Your task to perform on an android device: Do I have any events today? Image 0: 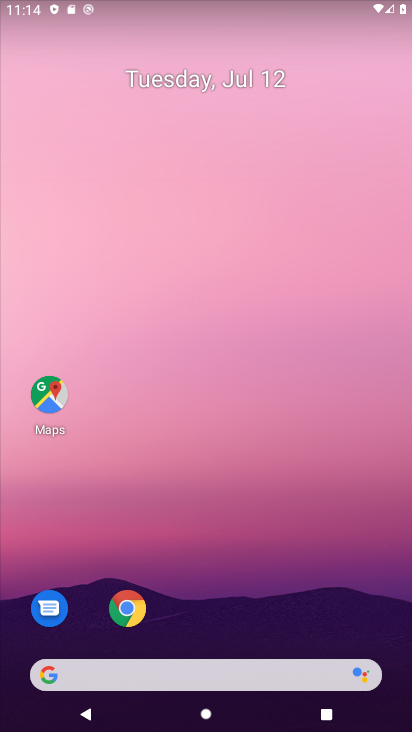
Step 0: drag from (243, 729) to (250, 98)
Your task to perform on an android device: Do I have any events today? Image 1: 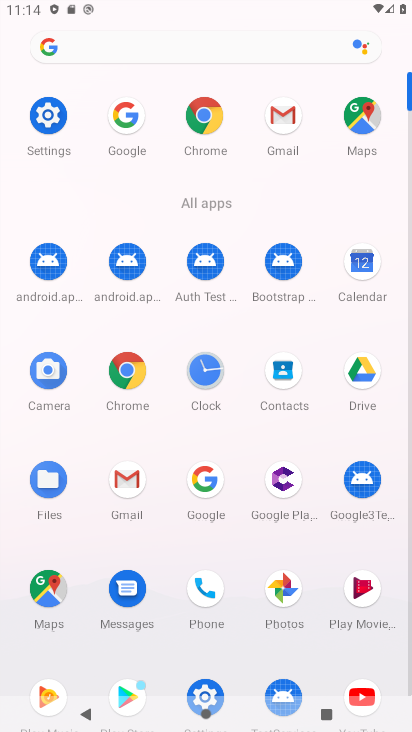
Step 1: click (357, 265)
Your task to perform on an android device: Do I have any events today? Image 2: 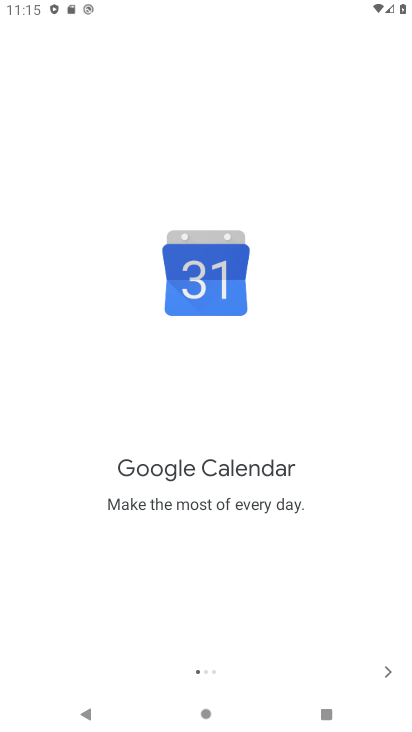
Step 2: click (388, 671)
Your task to perform on an android device: Do I have any events today? Image 3: 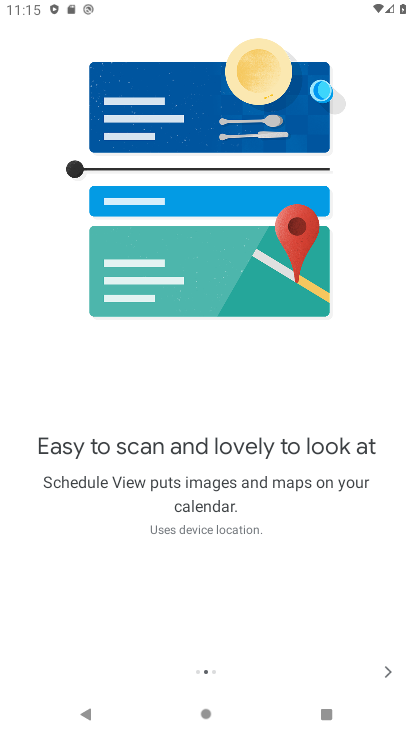
Step 3: click (385, 671)
Your task to perform on an android device: Do I have any events today? Image 4: 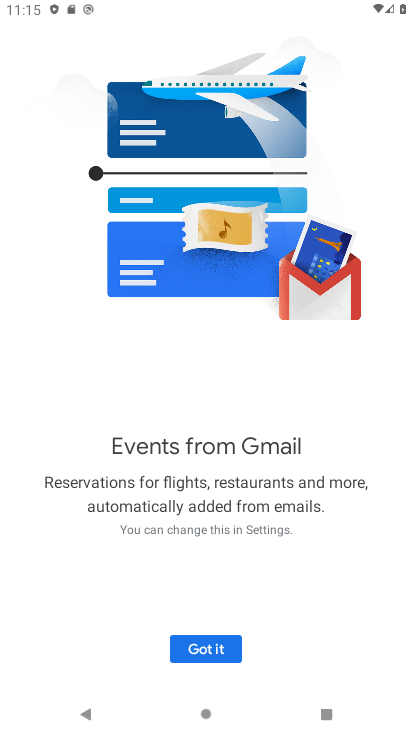
Step 4: click (190, 649)
Your task to perform on an android device: Do I have any events today? Image 5: 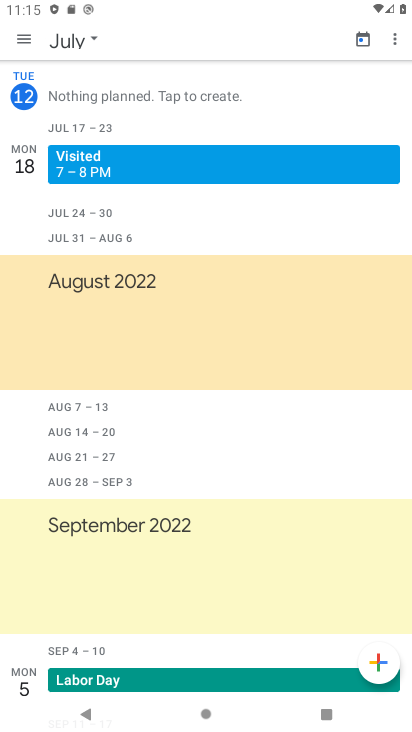
Step 5: click (26, 40)
Your task to perform on an android device: Do I have any events today? Image 6: 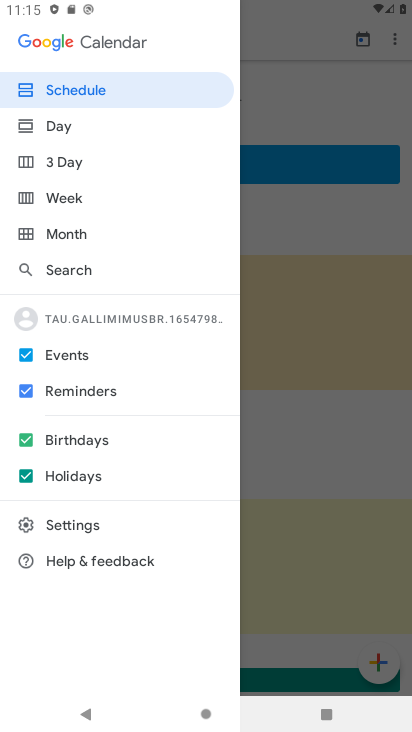
Step 6: click (29, 478)
Your task to perform on an android device: Do I have any events today? Image 7: 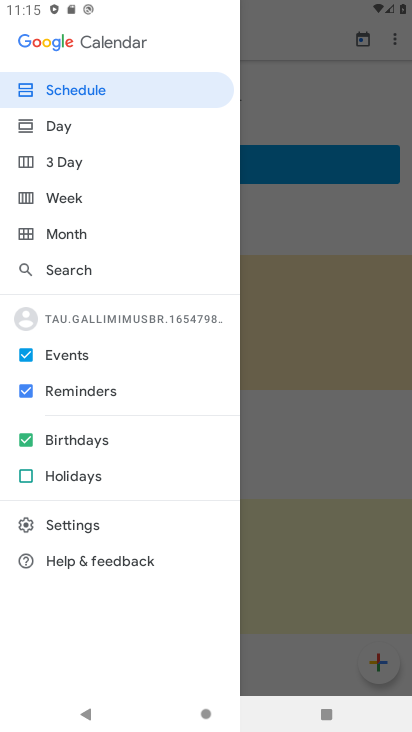
Step 7: click (29, 440)
Your task to perform on an android device: Do I have any events today? Image 8: 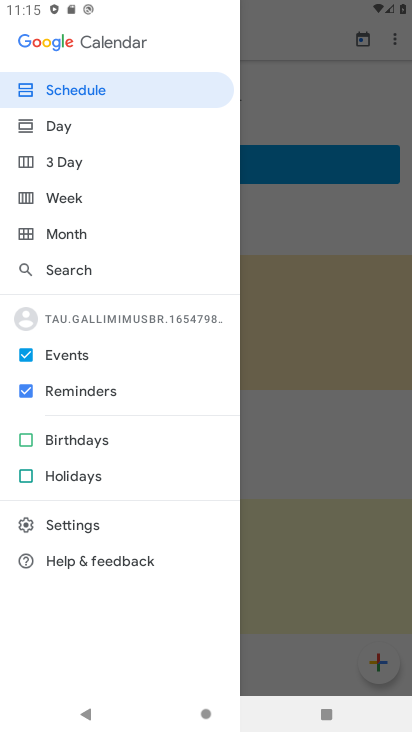
Step 8: click (30, 394)
Your task to perform on an android device: Do I have any events today? Image 9: 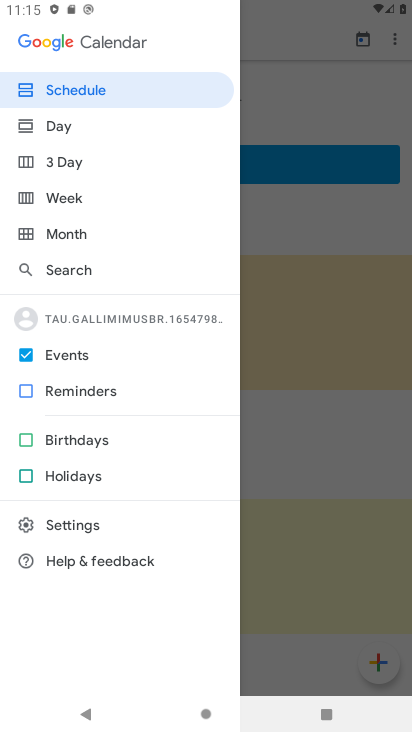
Step 9: click (284, 105)
Your task to perform on an android device: Do I have any events today? Image 10: 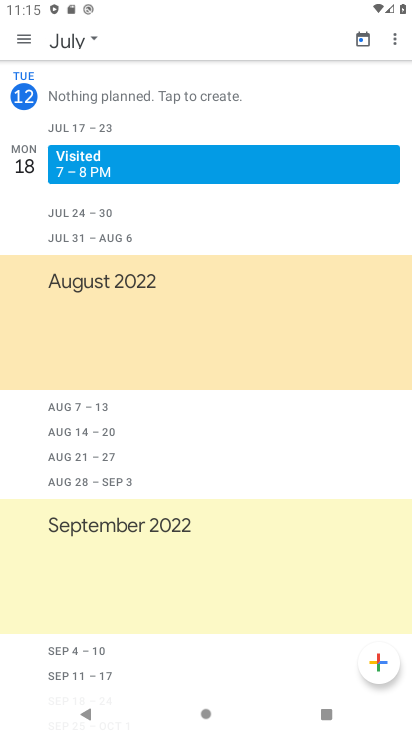
Step 10: task complete